Your task to perform on an android device: open wifi settings Image 0: 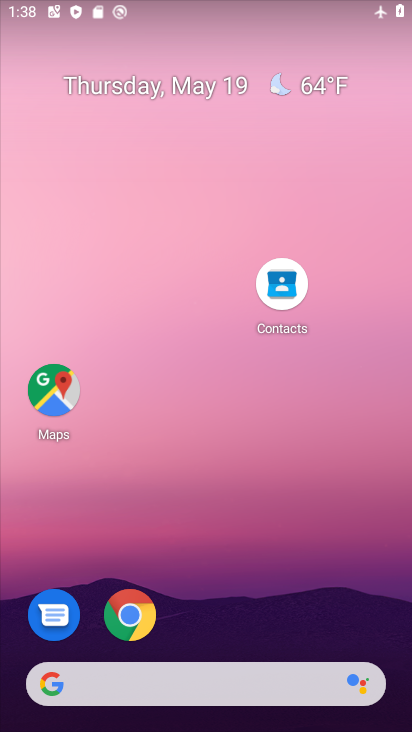
Step 0: drag from (189, 628) to (244, 98)
Your task to perform on an android device: open wifi settings Image 1: 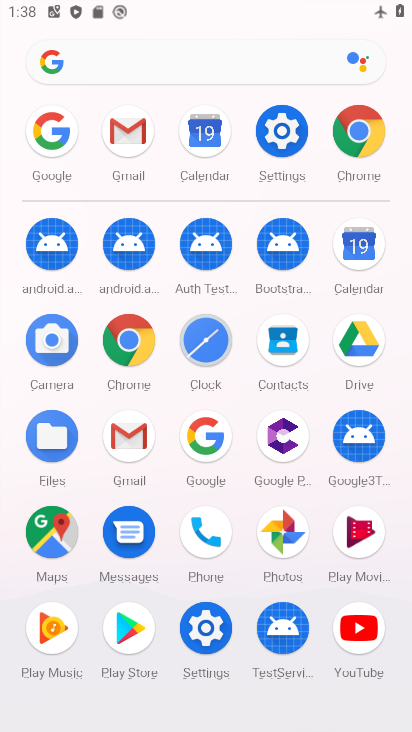
Step 1: click (291, 160)
Your task to perform on an android device: open wifi settings Image 2: 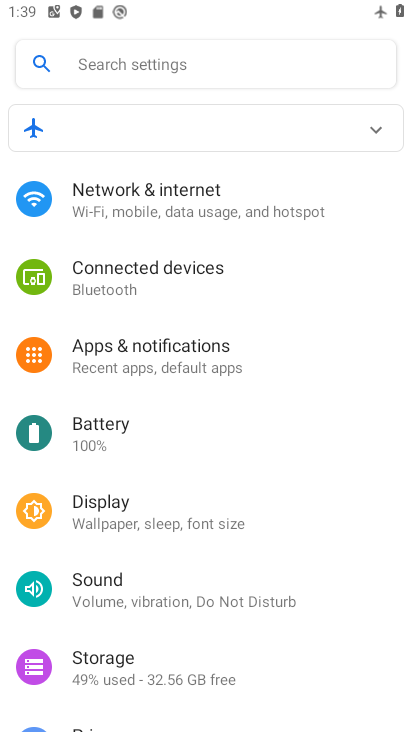
Step 2: click (236, 215)
Your task to perform on an android device: open wifi settings Image 3: 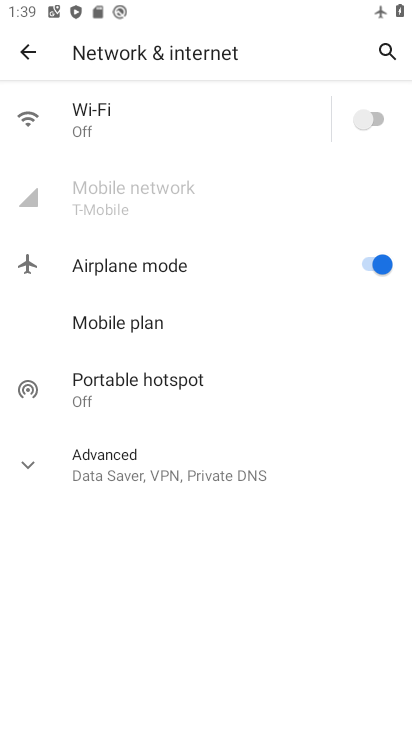
Step 3: click (259, 128)
Your task to perform on an android device: open wifi settings Image 4: 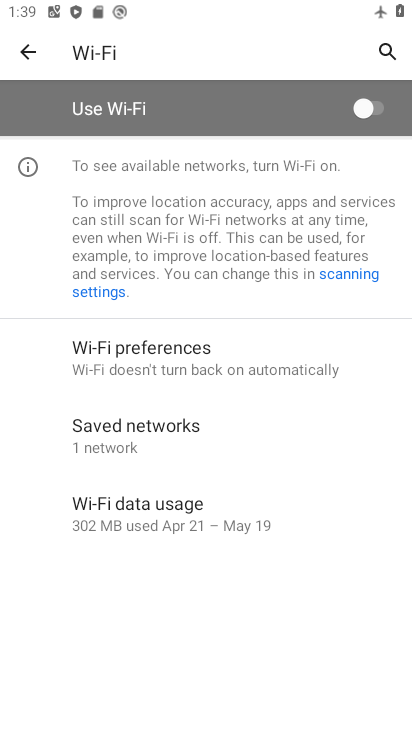
Step 4: task complete